Your task to perform on an android device: Open Google Maps Image 0: 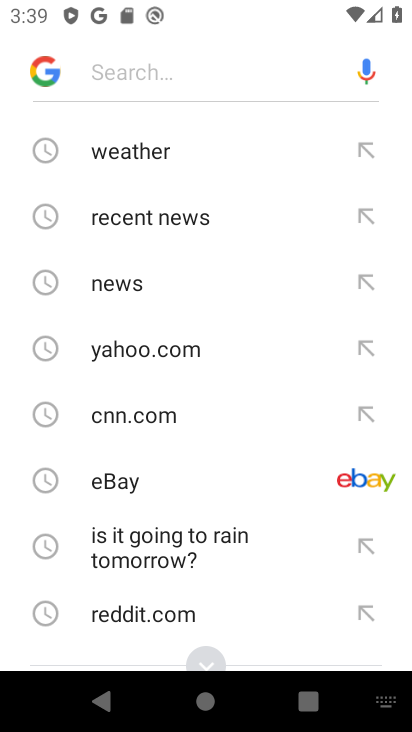
Step 0: press home button
Your task to perform on an android device: Open Google Maps Image 1: 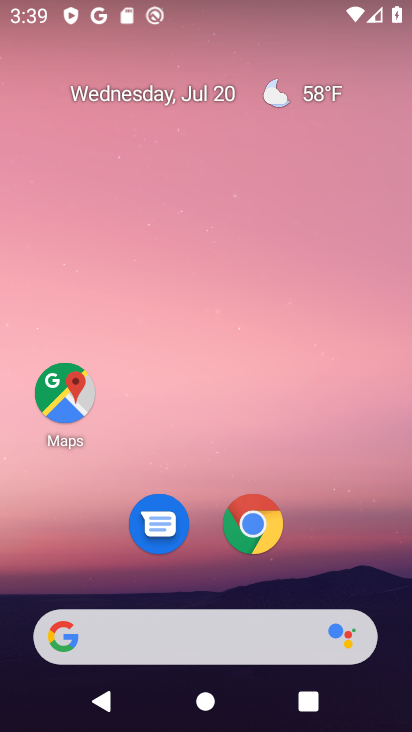
Step 1: click (71, 390)
Your task to perform on an android device: Open Google Maps Image 2: 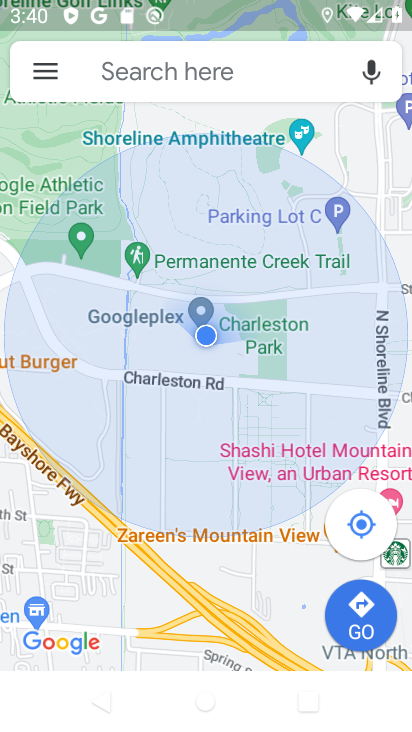
Step 2: task complete